Your task to perform on an android device: find which apps use the phone's location Image 0: 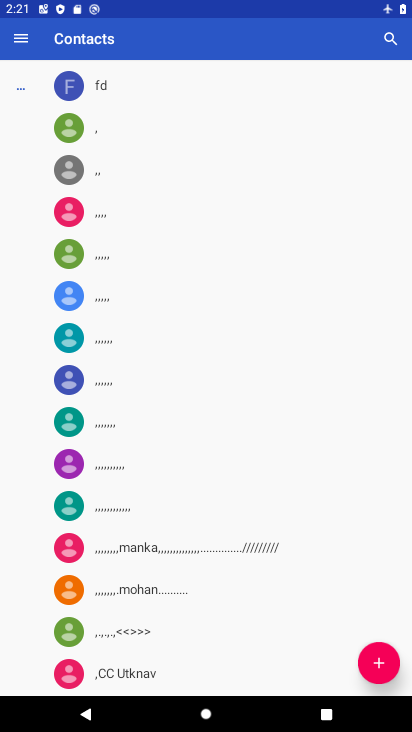
Step 0: press home button
Your task to perform on an android device: find which apps use the phone's location Image 1: 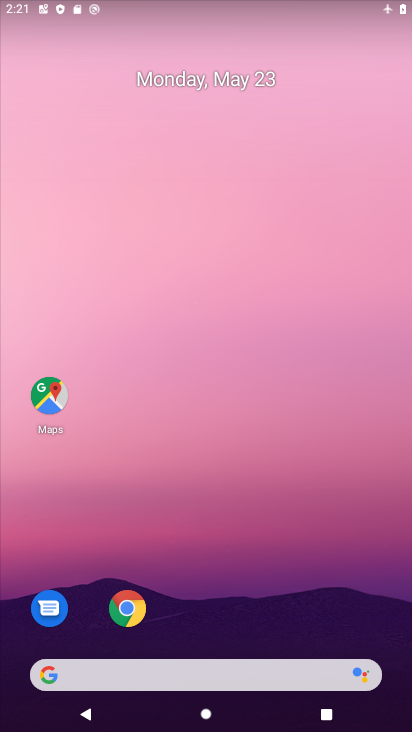
Step 1: drag from (234, 647) to (141, 22)
Your task to perform on an android device: find which apps use the phone's location Image 2: 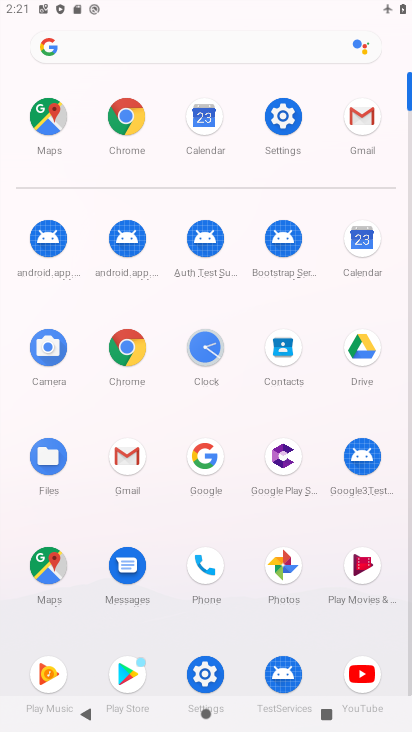
Step 2: click (211, 672)
Your task to perform on an android device: find which apps use the phone's location Image 3: 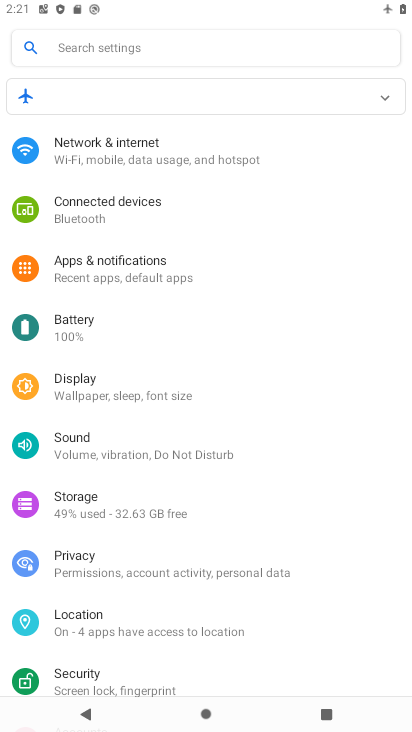
Step 3: click (77, 617)
Your task to perform on an android device: find which apps use the phone's location Image 4: 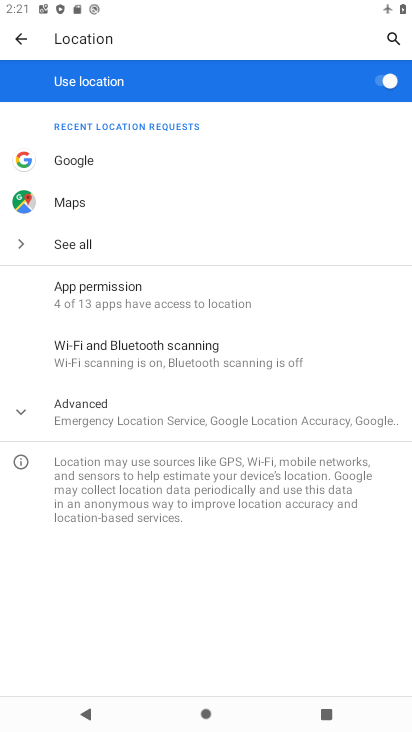
Step 4: click (87, 304)
Your task to perform on an android device: find which apps use the phone's location Image 5: 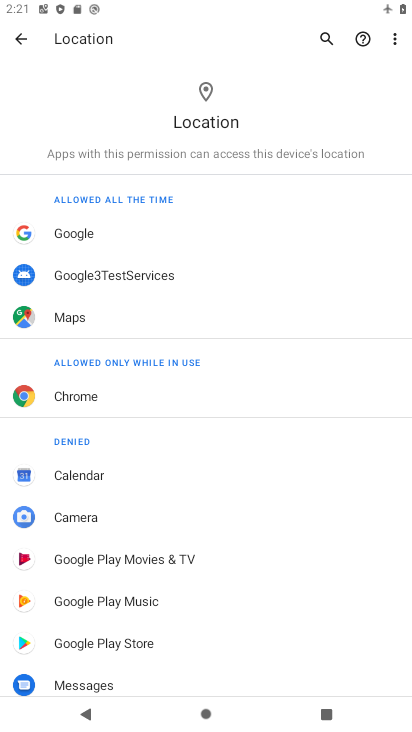
Step 5: task complete